Your task to perform on an android device: Go to internet settings Image 0: 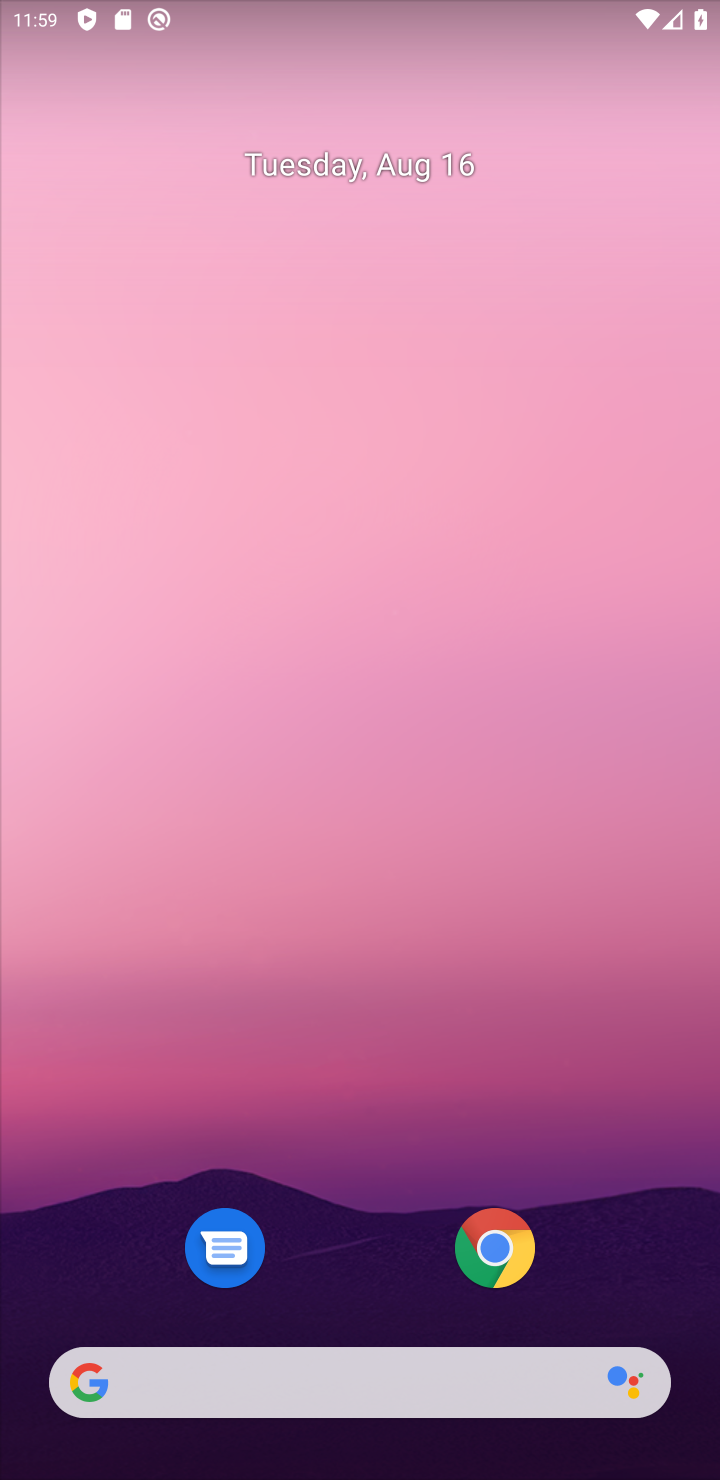
Step 0: drag from (423, 893) to (492, 113)
Your task to perform on an android device: Go to internet settings Image 1: 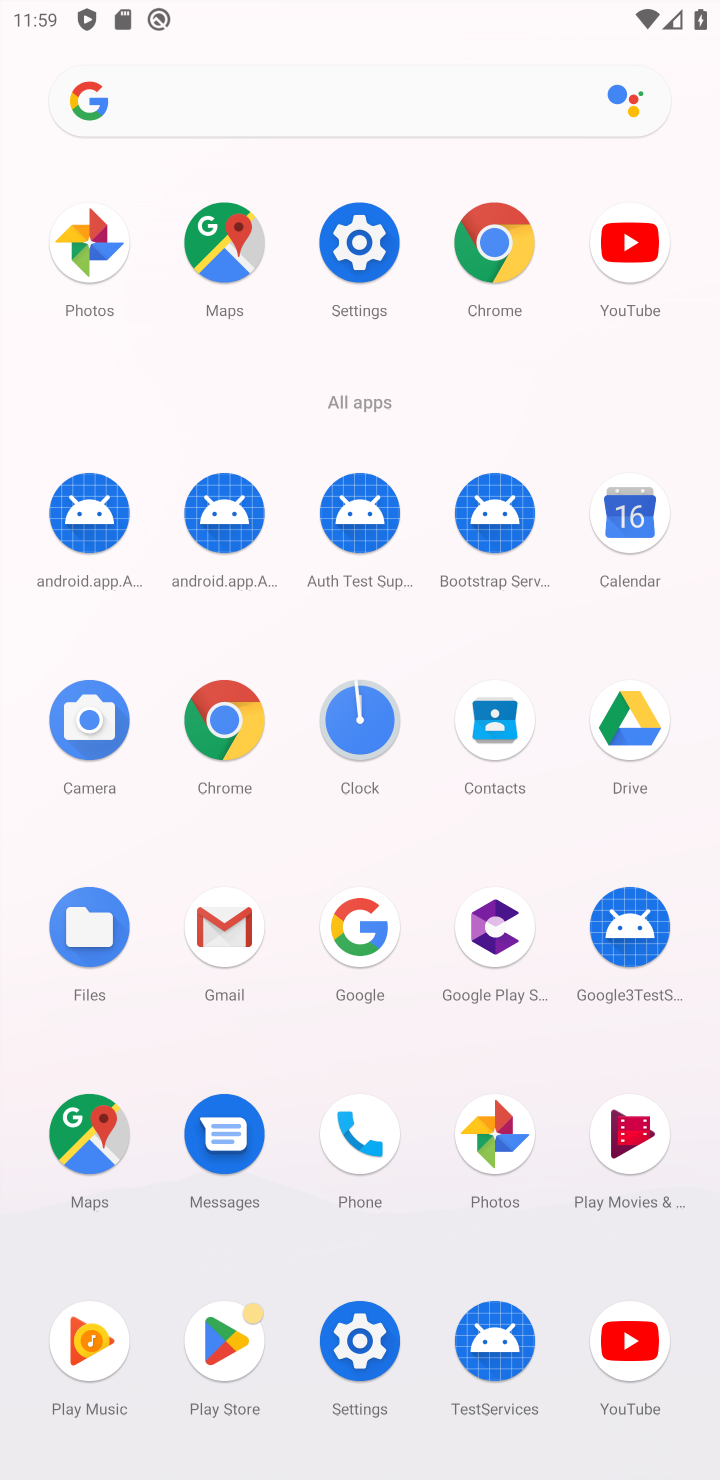
Step 1: click (367, 287)
Your task to perform on an android device: Go to internet settings Image 2: 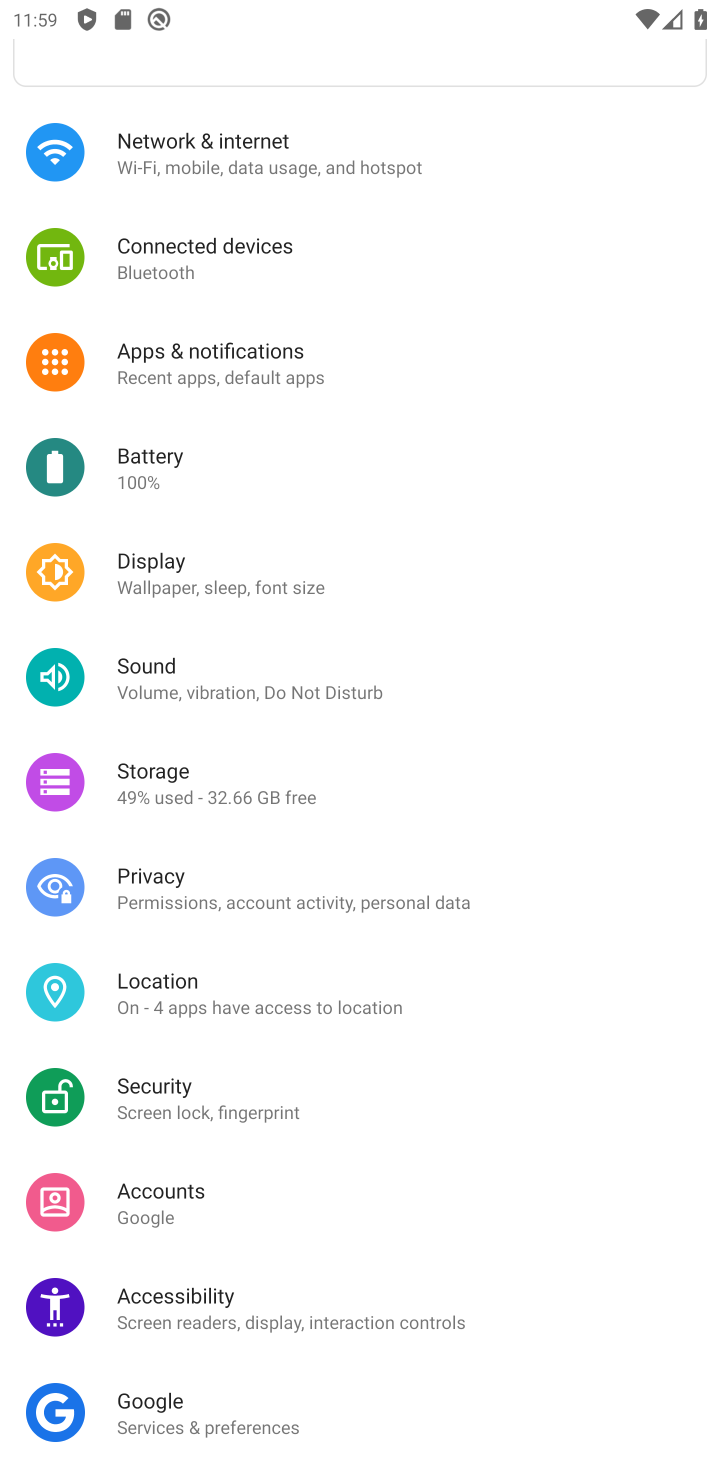
Step 2: task complete